Your task to perform on an android device: snooze an email in the gmail app Image 0: 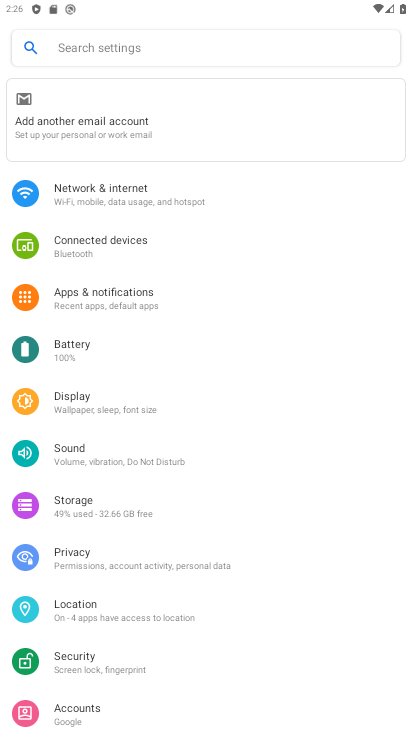
Step 0: press back button
Your task to perform on an android device: snooze an email in the gmail app Image 1: 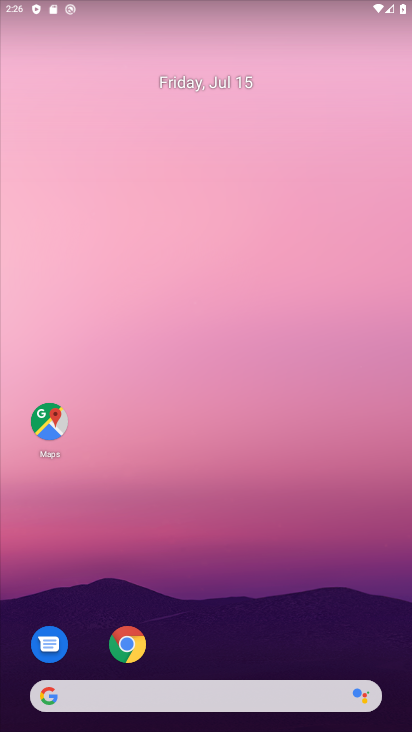
Step 1: drag from (259, 609) to (283, 8)
Your task to perform on an android device: snooze an email in the gmail app Image 2: 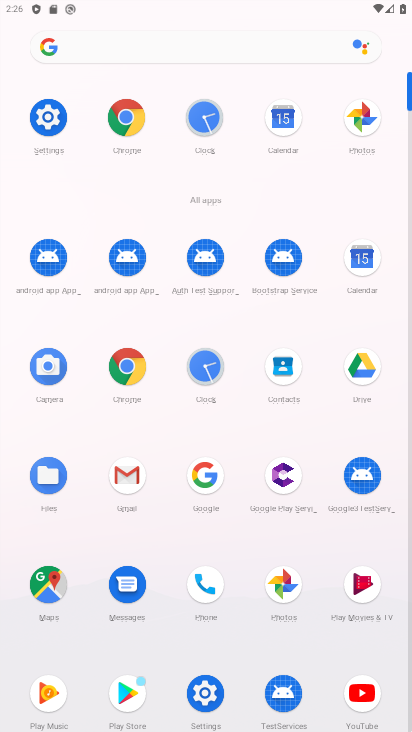
Step 2: click (117, 489)
Your task to perform on an android device: snooze an email in the gmail app Image 3: 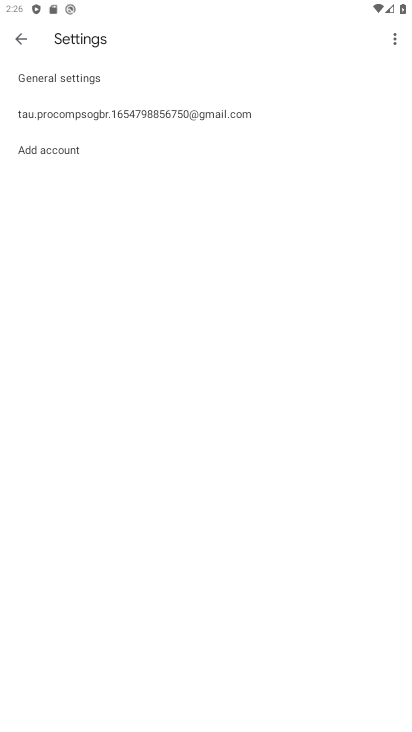
Step 3: click (16, 38)
Your task to perform on an android device: snooze an email in the gmail app Image 4: 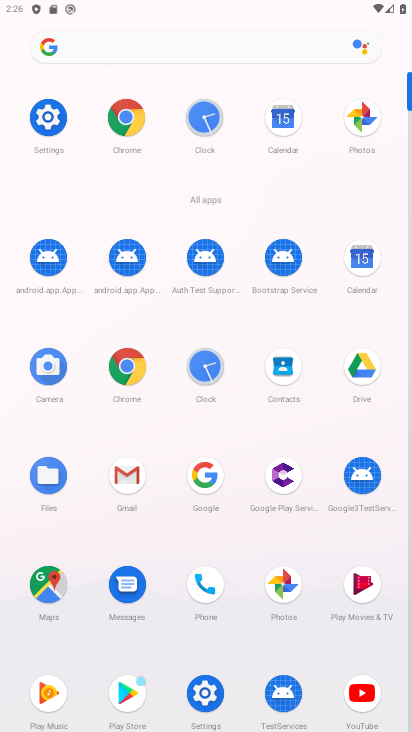
Step 4: click (122, 487)
Your task to perform on an android device: snooze an email in the gmail app Image 5: 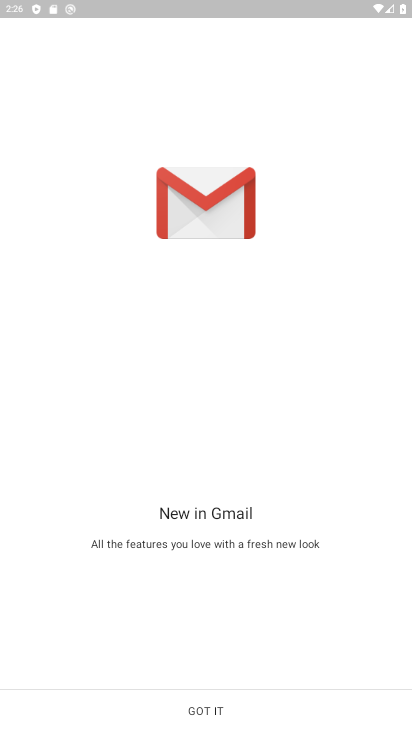
Step 5: click (214, 707)
Your task to perform on an android device: snooze an email in the gmail app Image 6: 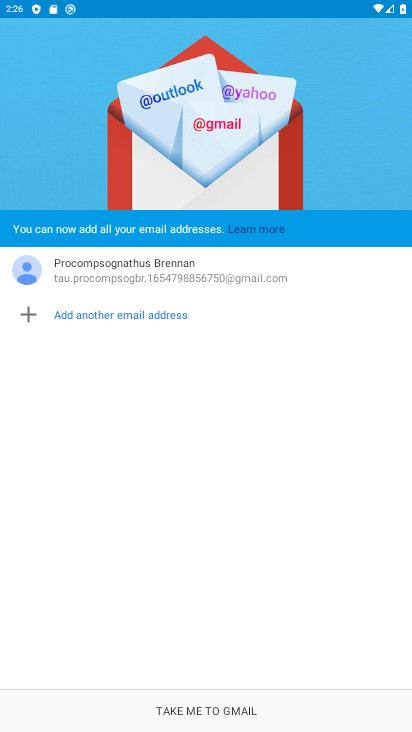
Step 6: click (190, 709)
Your task to perform on an android device: snooze an email in the gmail app Image 7: 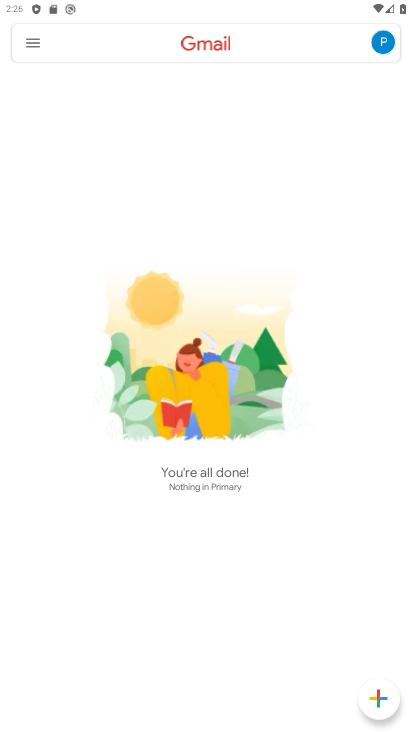
Step 7: click (28, 34)
Your task to perform on an android device: snooze an email in the gmail app Image 8: 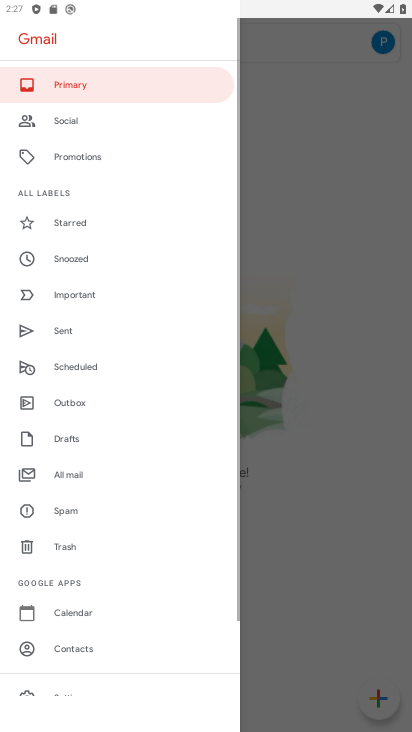
Step 8: click (70, 474)
Your task to perform on an android device: snooze an email in the gmail app Image 9: 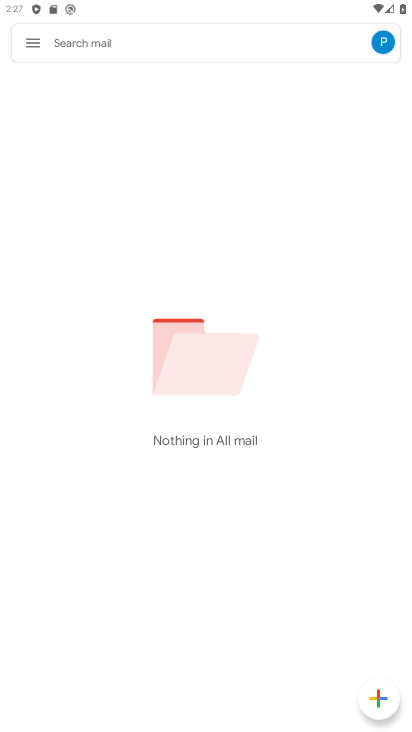
Step 9: task complete